Your task to perform on an android device: check data usage Image 0: 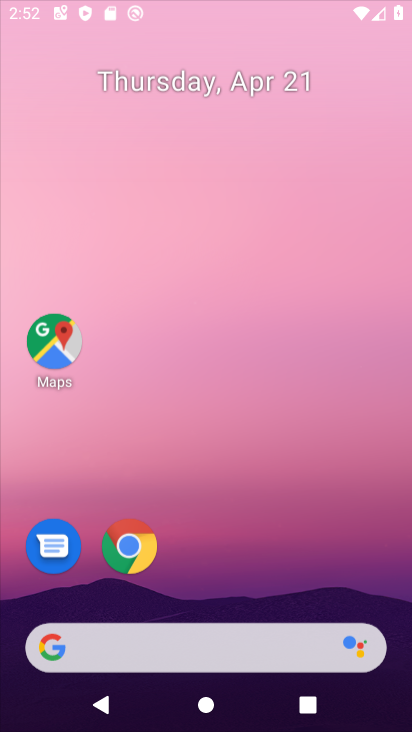
Step 0: click (261, 37)
Your task to perform on an android device: check data usage Image 1: 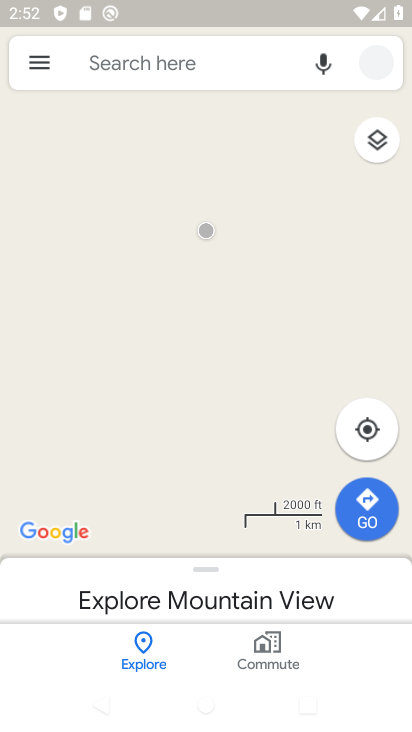
Step 1: press home button
Your task to perform on an android device: check data usage Image 2: 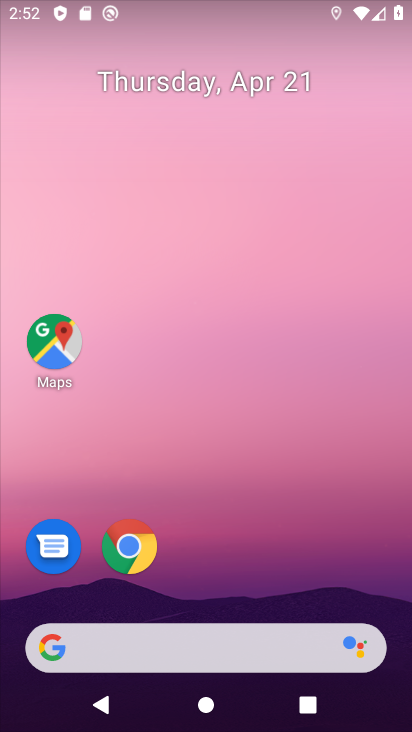
Step 2: drag from (244, 566) to (310, 21)
Your task to perform on an android device: check data usage Image 3: 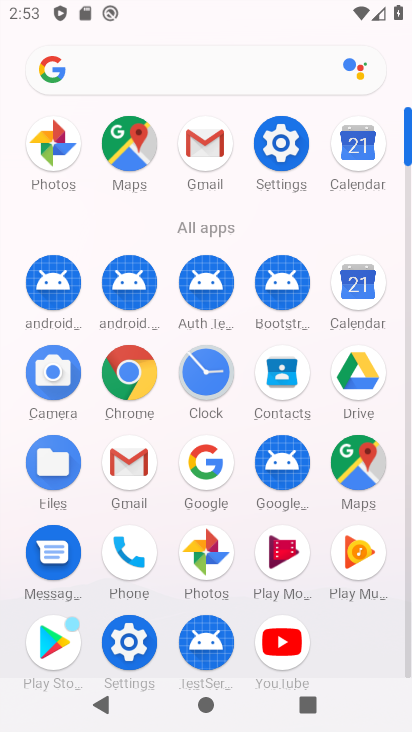
Step 3: click (273, 141)
Your task to perform on an android device: check data usage Image 4: 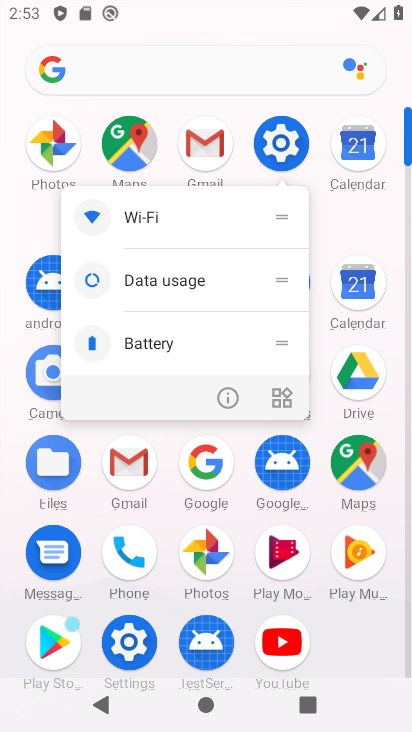
Step 4: click (160, 287)
Your task to perform on an android device: check data usage Image 5: 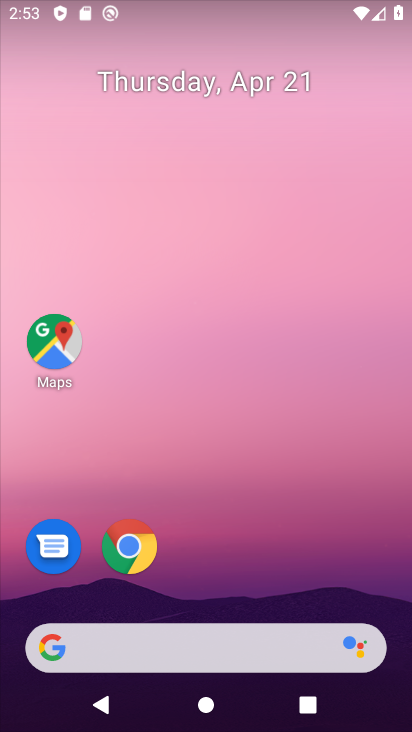
Step 5: drag from (279, 599) to (323, 66)
Your task to perform on an android device: check data usage Image 6: 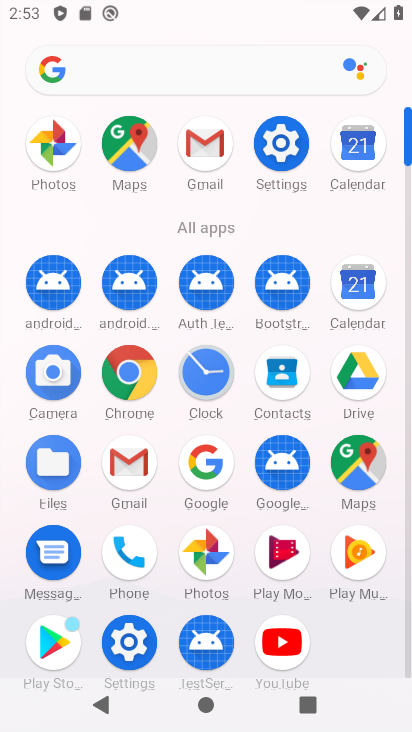
Step 6: click (286, 122)
Your task to perform on an android device: check data usage Image 7: 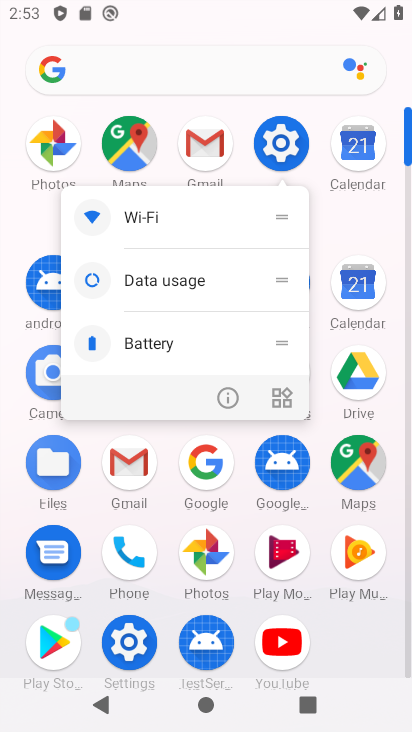
Step 7: click (279, 143)
Your task to perform on an android device: check data usage Image 8: 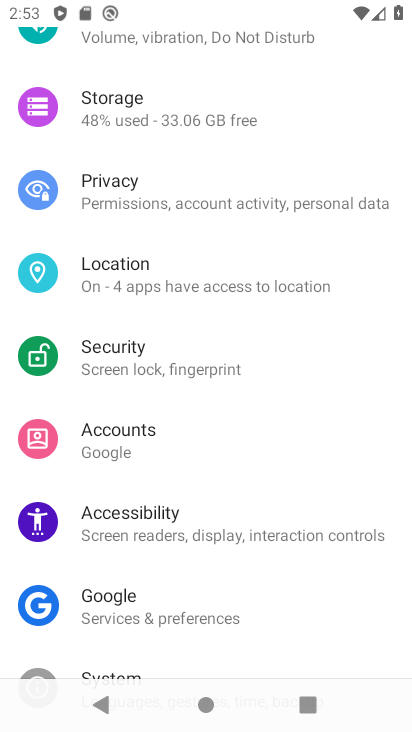
Step 8: drag from (165, 102) to (122, 635)
Your task to perform on an android device: check data usage Image 9: 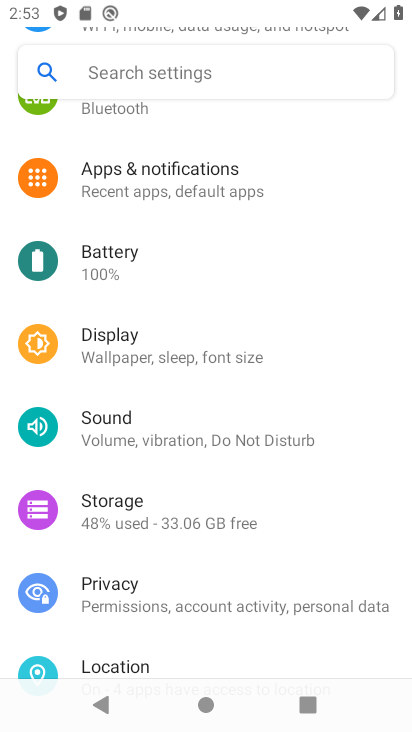
Step 9: drag from (216, 186) to (161, 652)
Your task to perform on an android device: check data usage Image 10: 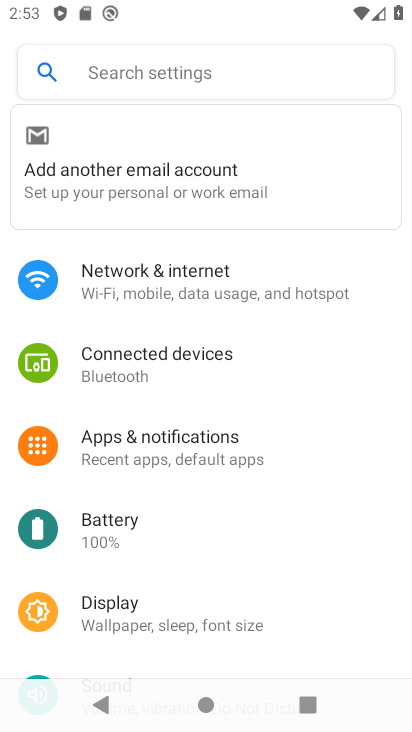
Step 10: click (211, 272)
Your task to perform on an android device: check data usage Image 11: 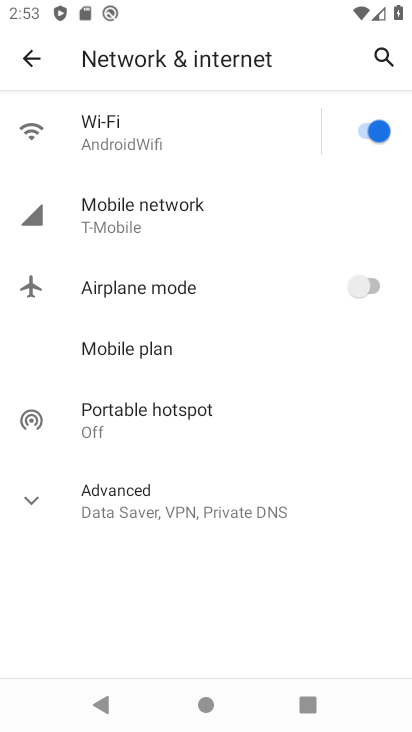
Step 11: click (149, 218)
Your task to perform on an android device: check data usage Image 12: 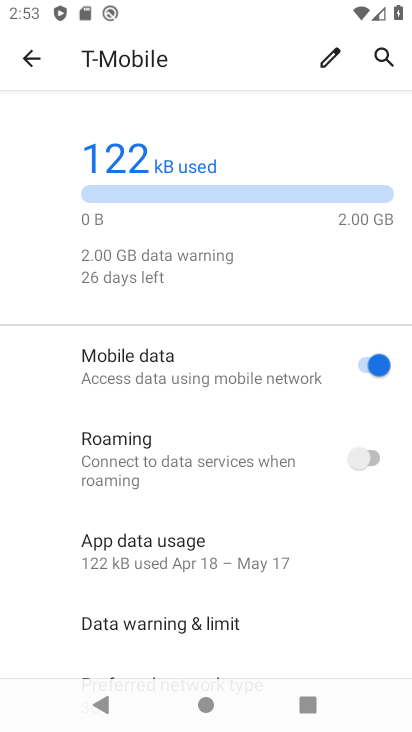
Step 12: task complete